Your task to perform on an android device: check google app version Image 0: 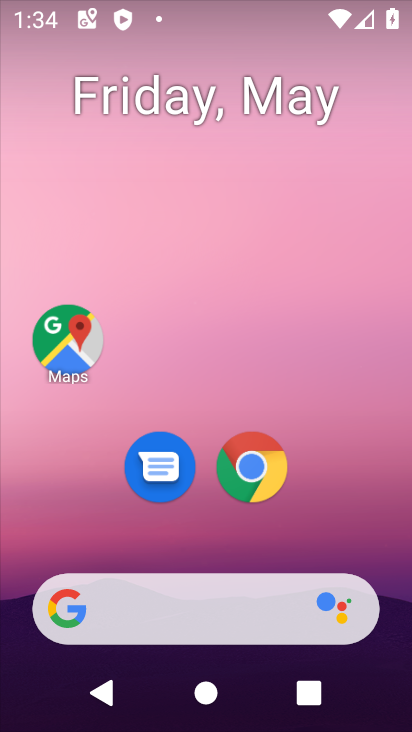
Step 0: drag from (341, 481) to (302, 57)
Your task to perform on an android device: check google app version Image 1: 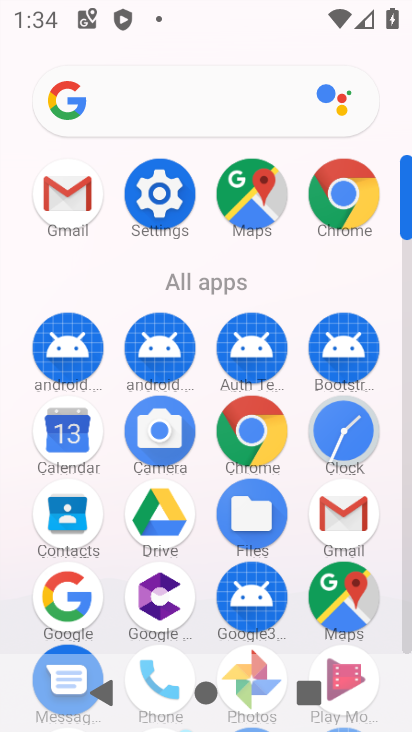
Step 1: click (49, 602)
Your task to perform on an android device: check google app version Image 2: 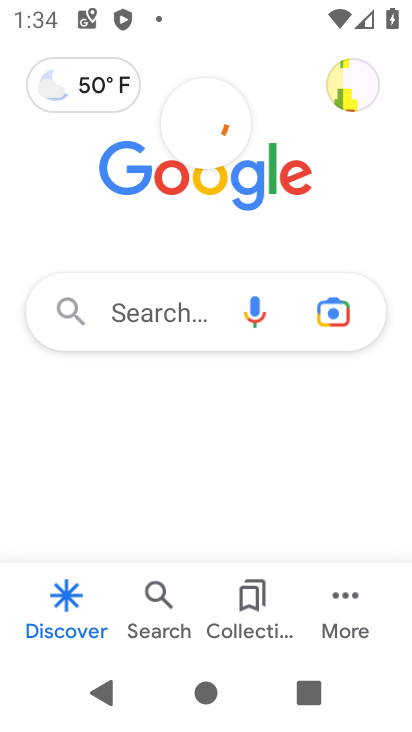
Step 2: click (338, 620)
Your task to perform on an android device: check google app version Image 3: 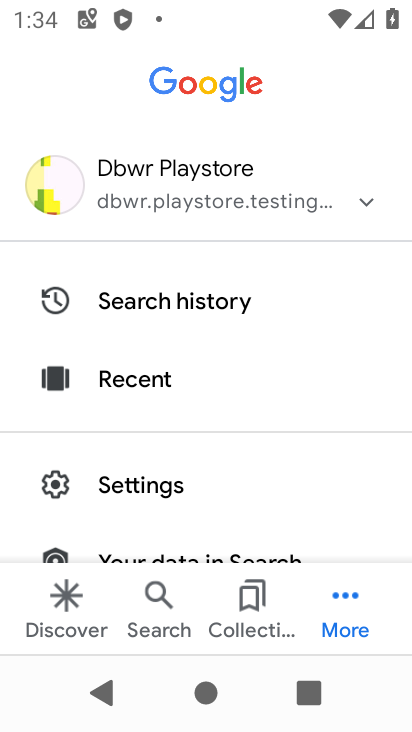
Step 3: click (112, 482)
Your task to perform on an android device: check google app version Image 4: 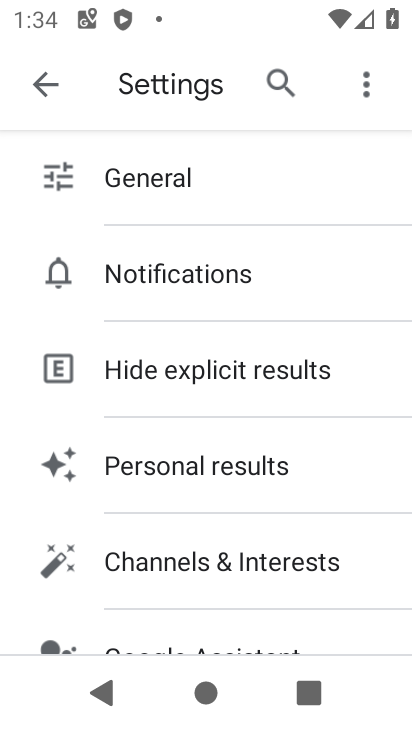
Step 4: drag from (145, 535) to (135, 113)
Your task to perform on an android device: check google app version Image 5: 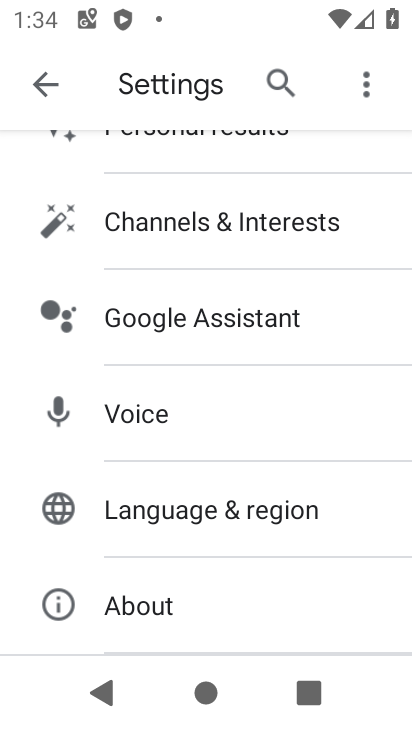
Step 5: click (135, 586)
Your task to perform on an android device: check google app version Image 6: 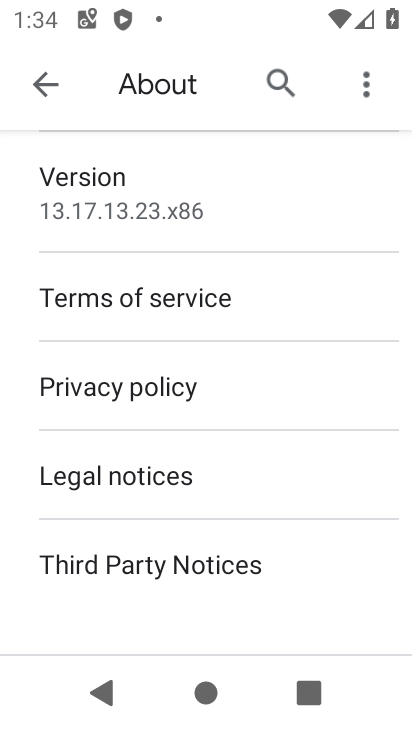
Step 6: click (97, 215)
Your task to perform on an android device: check google app version Image 7: 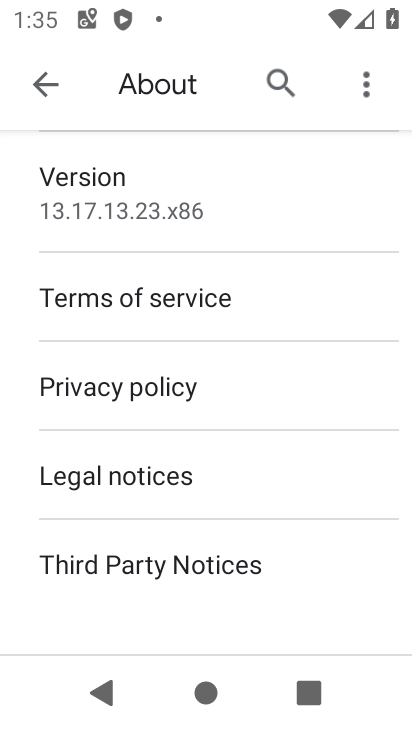
Step 7: task complete